Your task to perform on an android device: Open Chrome and go to settings Image 0: 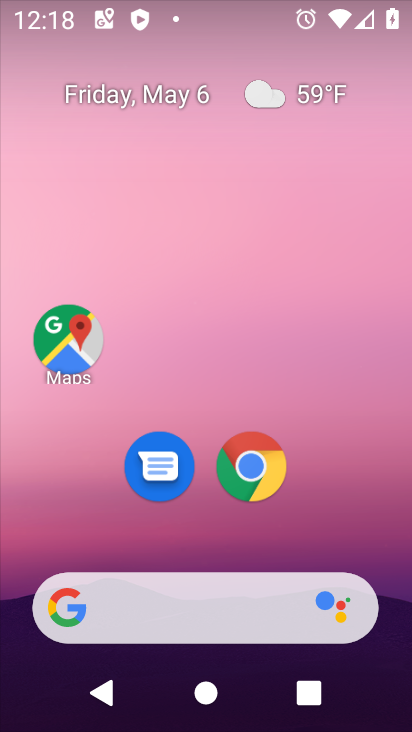
Step 0: click (244, 466)
Your task to perform on an android device: Open Chrome and go to settings Image 1: 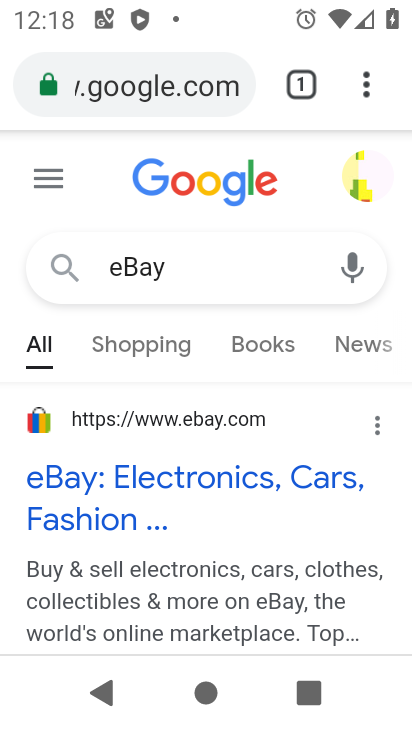
Step 1: drag from (221, 512) to (242, 352)
Your task to perform on an android device: Open Chrome and go to settings Image 2: 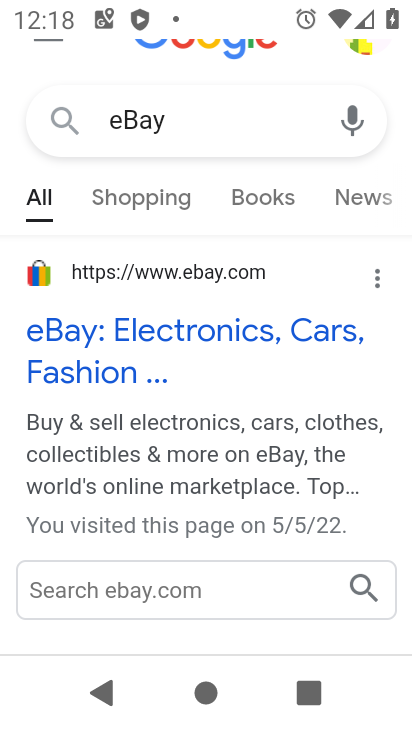
Step 2: drag from (187, 494) to (223, 247)
Your task to perform on an android device: Open Chrome and go to settings Image 3: 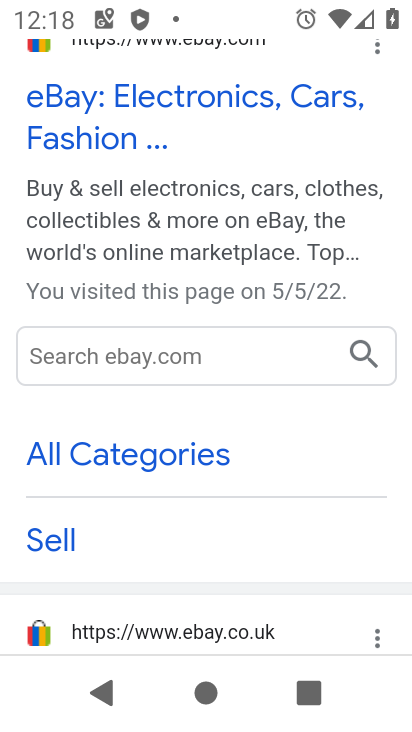
Step 3: drag from (256, 177) to (270, 386)
Your task to perform on an android device: Open Chrome and go to settings Image 4: 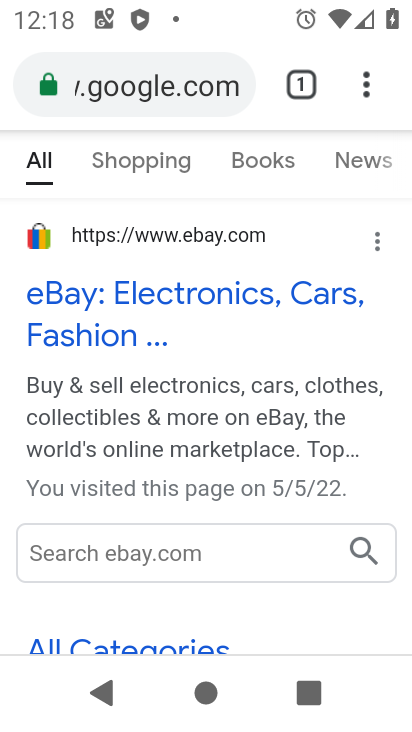
Step 4: click (365, 83)
Your task to perform on an android device: Open Chrome and go to settings Image 5: 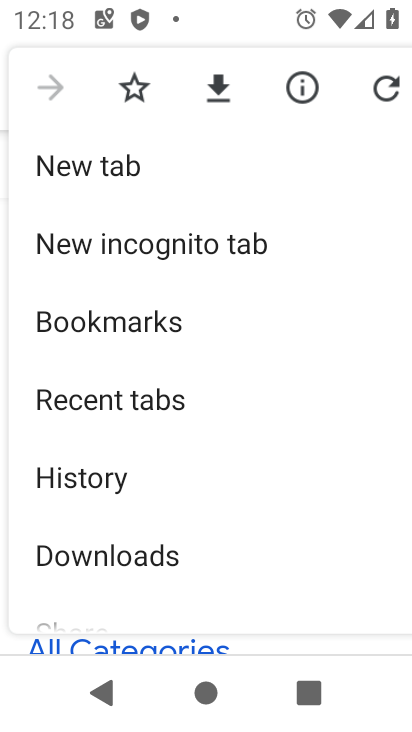
Step 5: drag from (156, 508) to (224, 127)
Your task to perform on an android device: Open Chrome and go to settings Image 6: 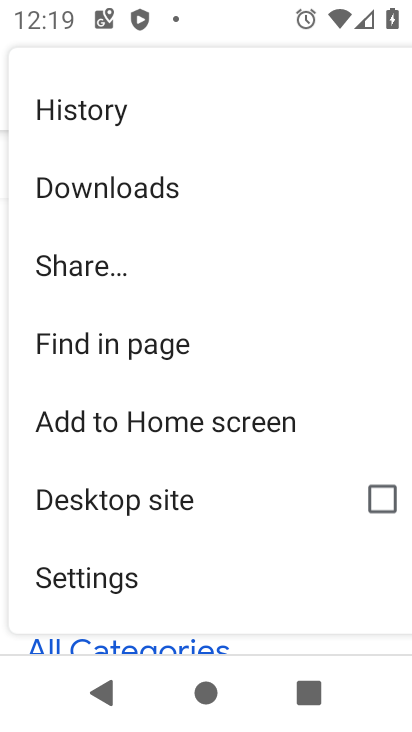
Step 6: drag from (116, 568) to (157, 349)
Your task to perform on an android device: Open Chrome and go to settings Image 7: 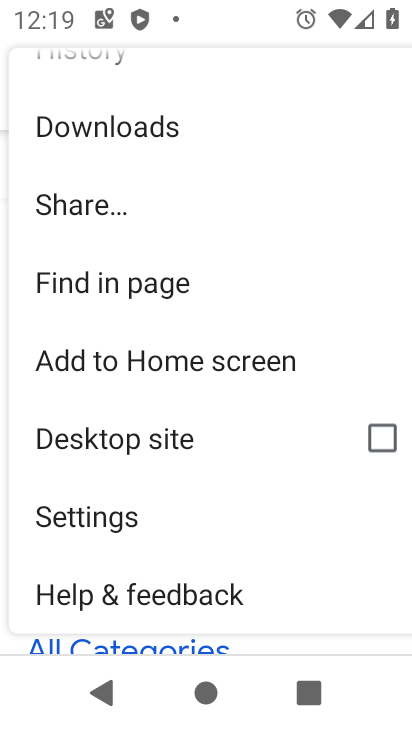
Step 7: click (113, 514)
Your task to perform on an android device: Open Chrome and go to settings Image 8: 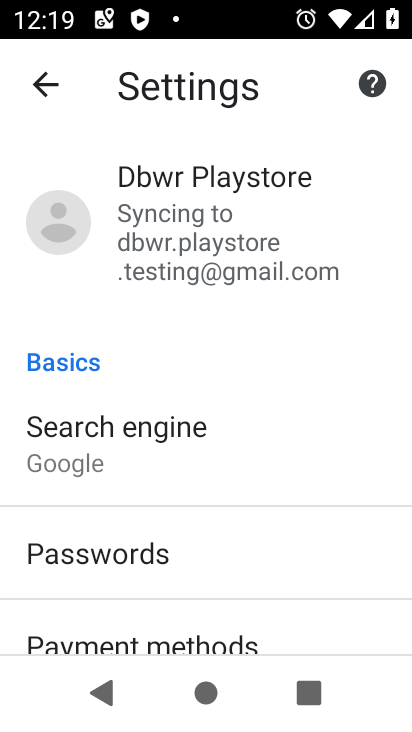
Step 8: task complete